Your task to perform on an android device: Do I have any events tomorrow? Image 0: 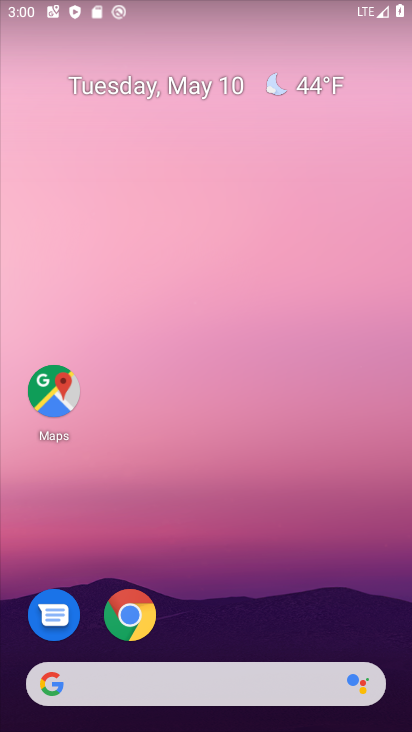
Step 0: drag from (277, 599) to (341, 3)
Your task to perform on an android device: Do I have any events tomorrow? Image 1: 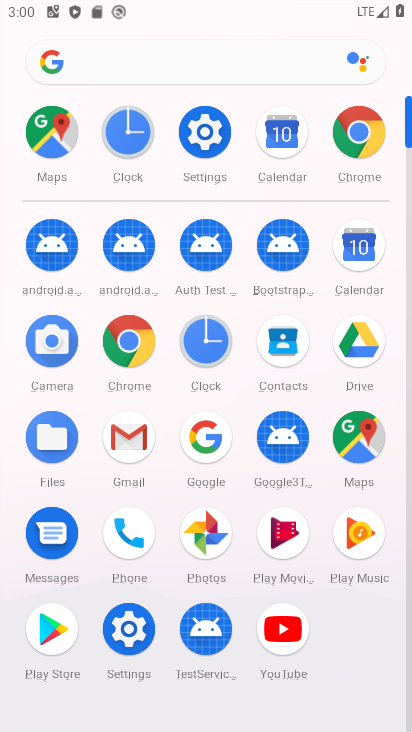
Step 1: click (355, 242)
Your task to perform on an android device: Do I have any events tomorrow? Image 2: 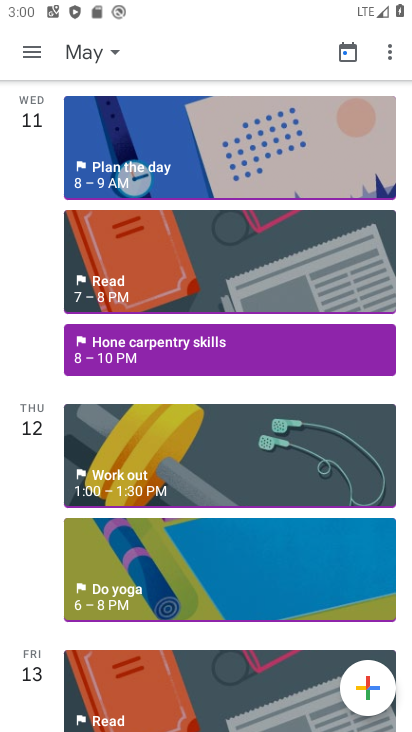
Step 2: task complete